Your task to perform on an android device: empty trash in google photos Image 0: 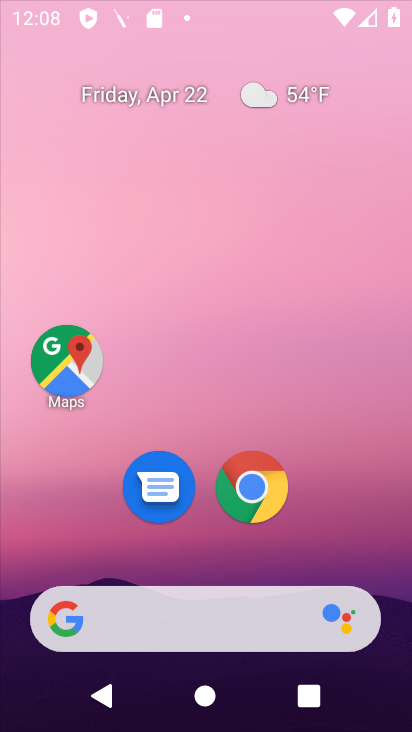
Step 0: drag from (309, 411) to (284, 63)
Your task to perform on an android device: empty trash in google photos Image 1: 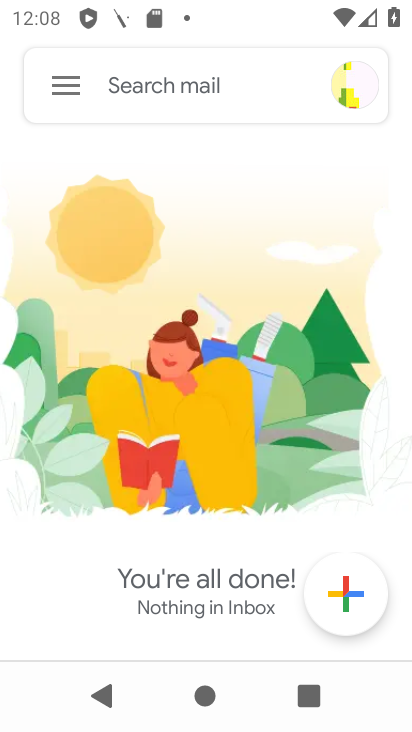
Step 1: press home button
Your task to perform on an android device: empty trash in google photos Image 2: 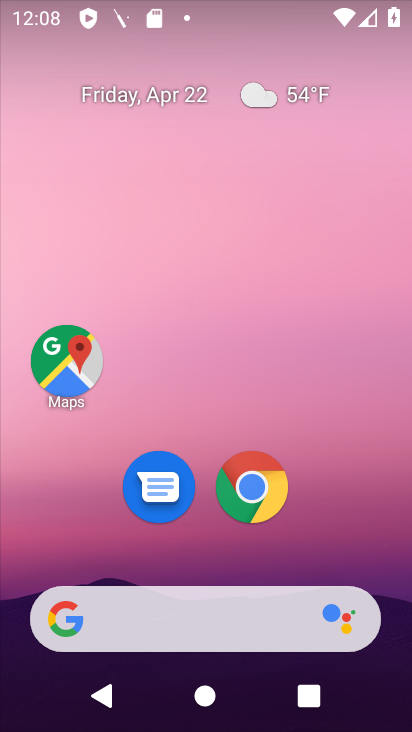
Step 2: drag from (240, 353) to (271, 87)
Your task to perform on an android device: empty trash in google photos Image 3: 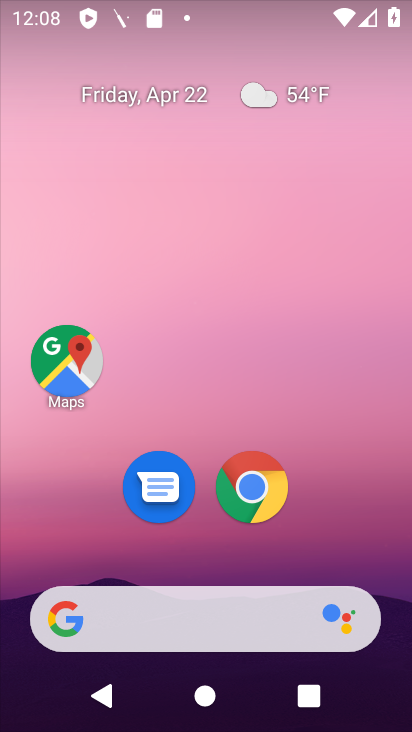
Step 3: drag from (219, 560) to (263, 86)
Your task to perform on an android device: empty trash in google photos Image 4: 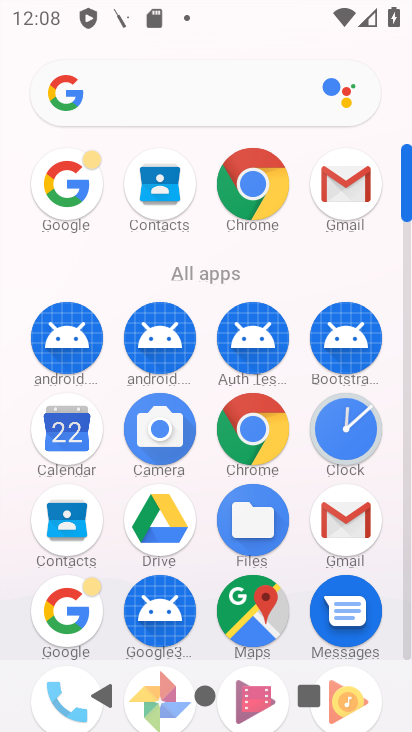
Step 4: drag from (245, 544) to (283, 137)
Your task to perform on an android device: empty trash in google photos Image 5: 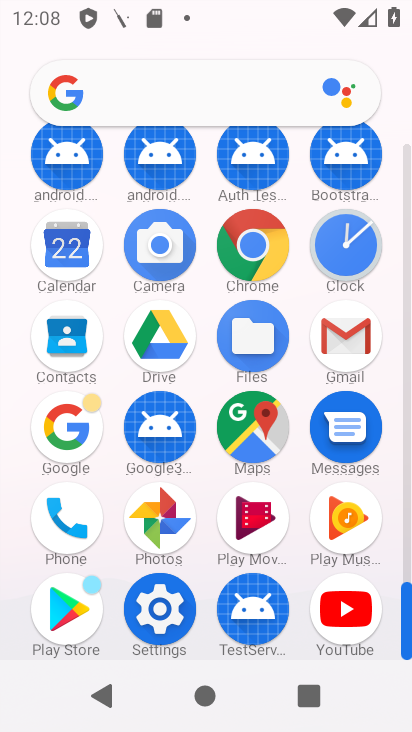
Step 5: click (166, 504)
Your task to perform on an android device: empty trash in google photos Image 6: 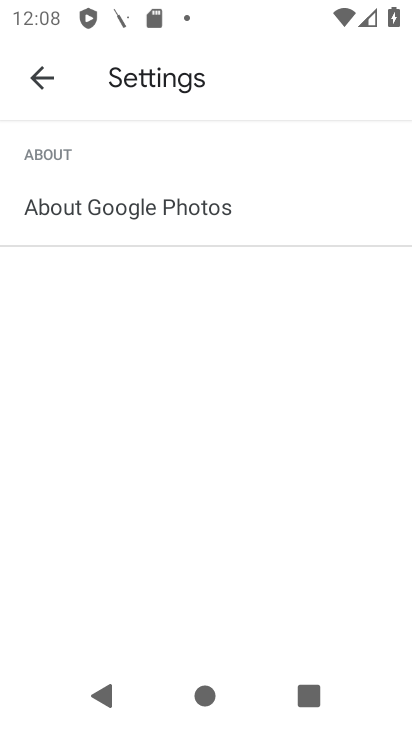
Step 6: click (45, 81)
Your task to perform on an android device: empty trash in google photos Image 7: 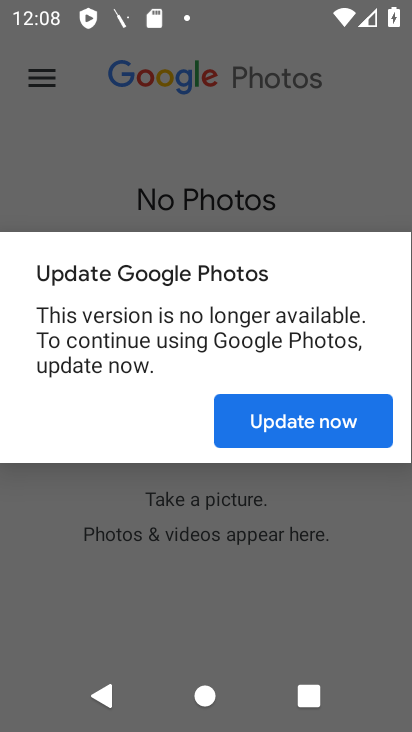
Step 7: click (247, 417)
Your task to perform on an android device: empty trash in google photos Image 8: 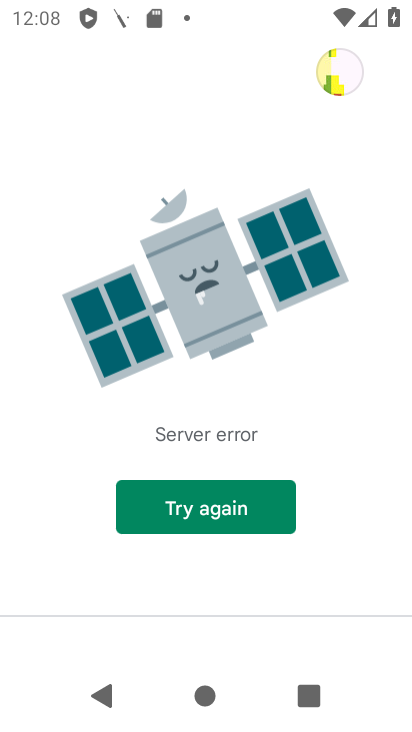
Step 8: click (224, 508)
Your task to perform on an android device: empty trash in google photos Image 9: 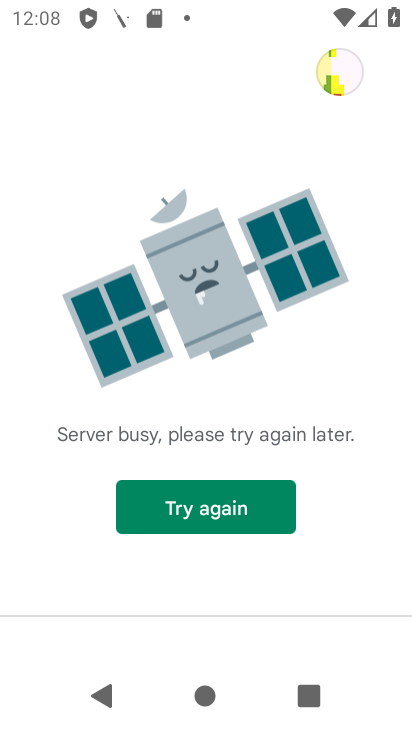
Step 9: task complete